Your task to perform on an android device: open device folders in google photos Image 0: 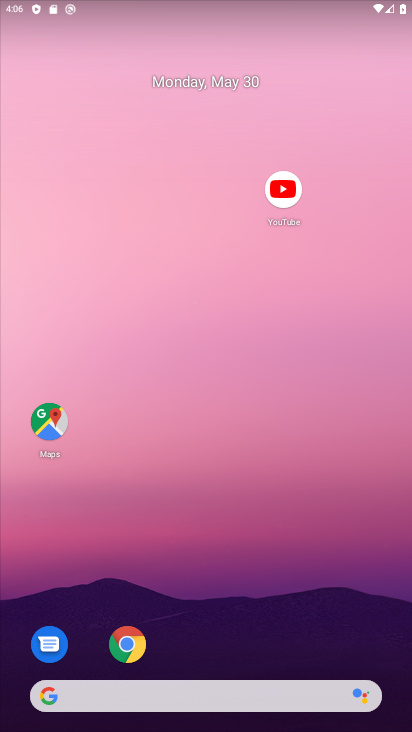
Step 0: drag from (223, 672) to (232, 107)
Your task to perform on an android device: open device folders in google photos Image 1: 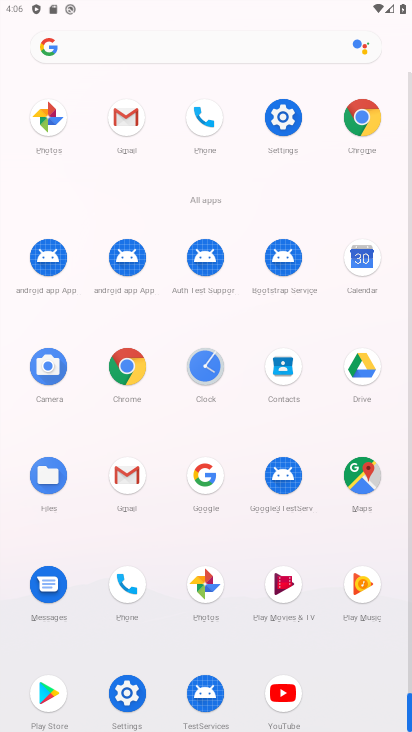
Step 1: click (42, 126)
Your task to perform on an android device: open device folders in google photos Image 2: 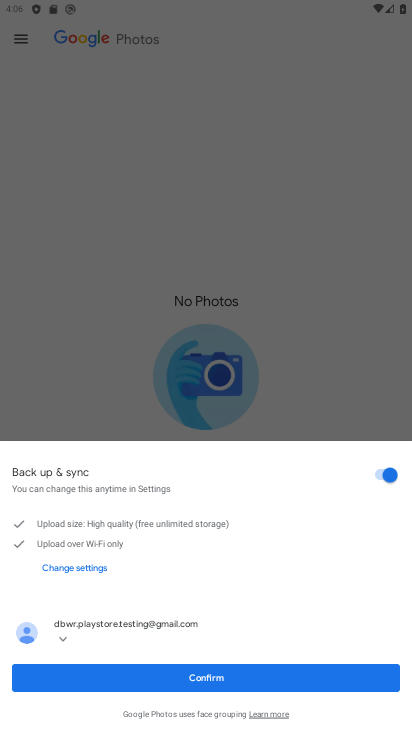
Step 2: click (206, 669)
Your task to perform on an android device: open device folders in google photos Image 3: 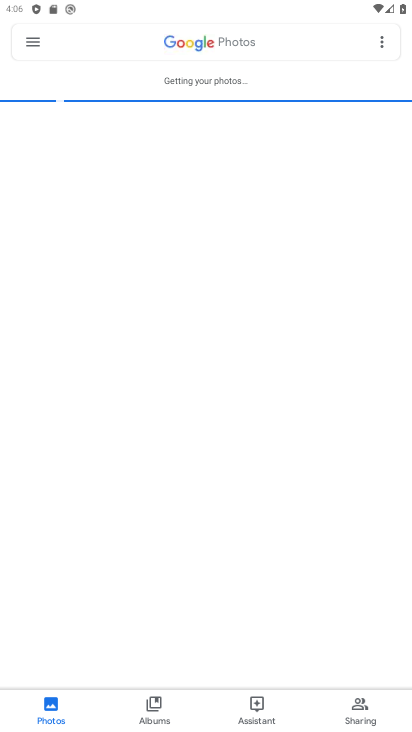
Step 3: click (26, 51)
Your task to perform on an android device: open device folders in google photos Image 4: 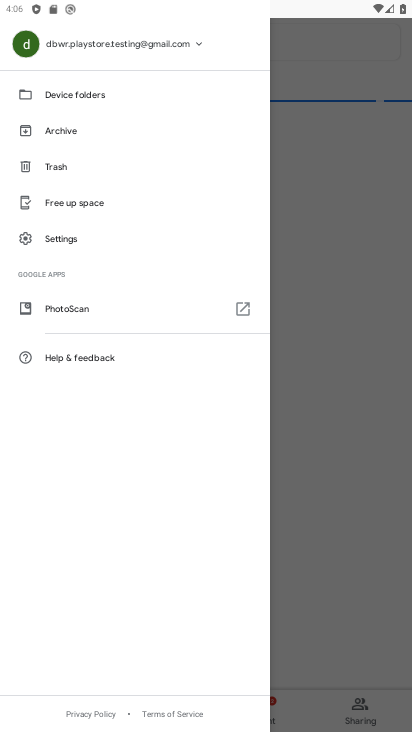
Step 4: click (131, 98)
Your task to perform on an android device: open device folders in google photos Image 5: 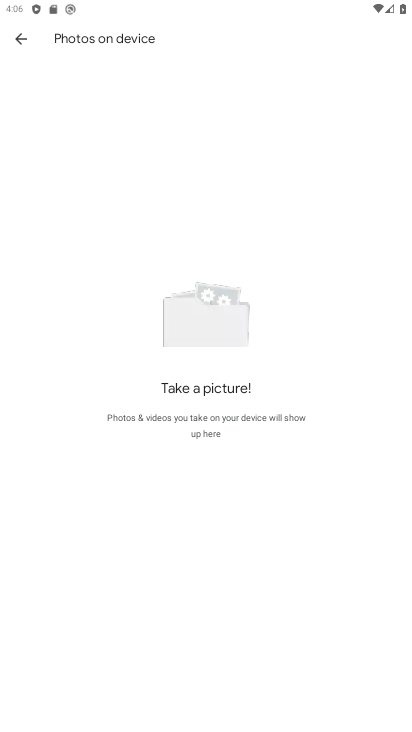
Step 5: task complete